Your task to perform on an android device: Go to Android settings Image 0: 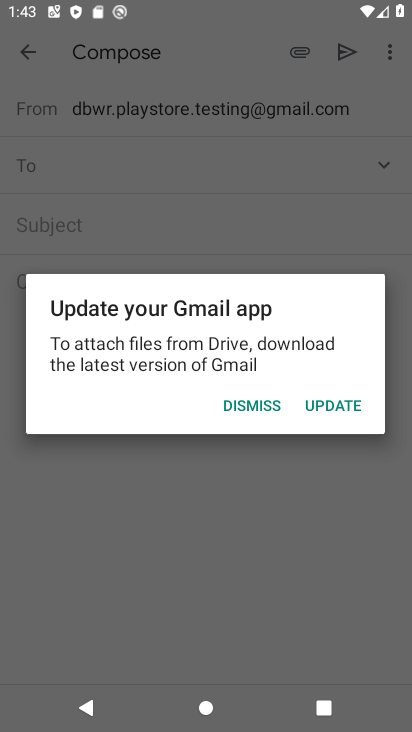
Step 0: press home button
Your task to perform on an android device: Go to Android settings Image 1: 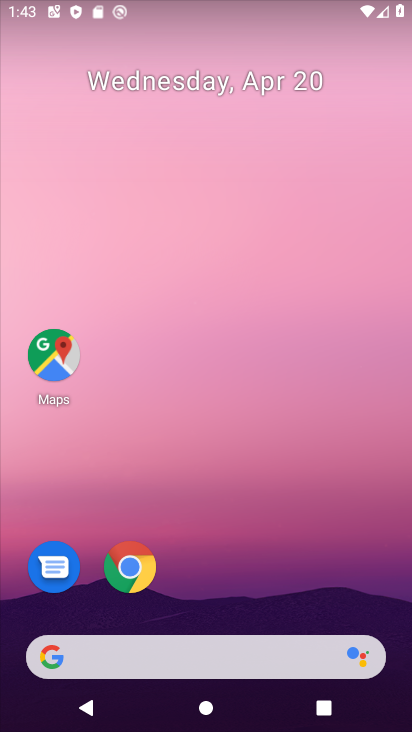
Step 1: drag from (240, 599) to (238, 132)
Your task to perform on an android device: Go to Android settings Image 2: 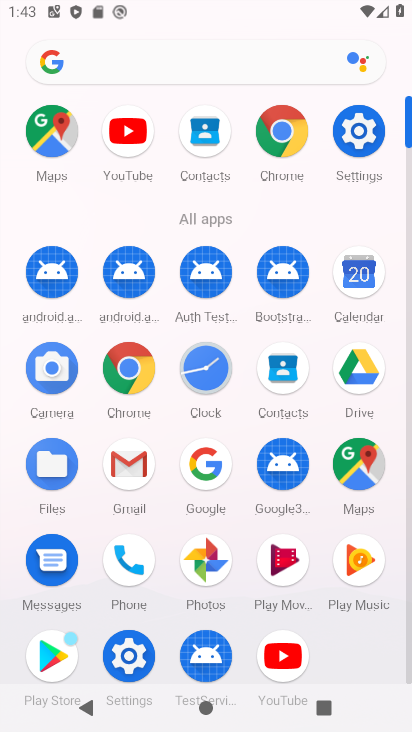
Step 2: click (362, 136)
Your task to perform on an android device: Go to Android settings Image 3: 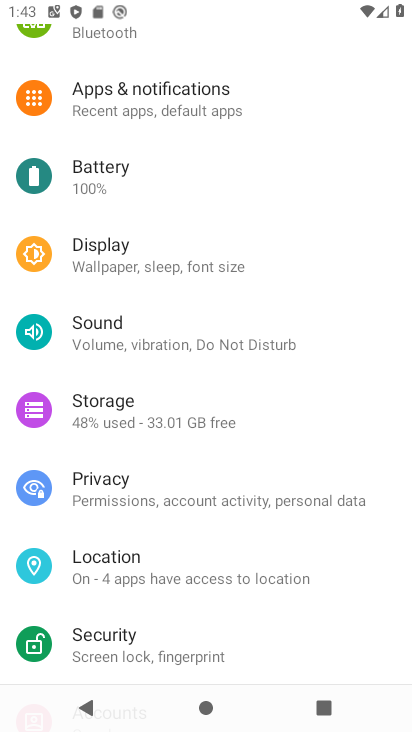
Step 3: drag from (118, 652) to (172, 56)
Your task to perform on an android device: Go to Android settings Image 4: 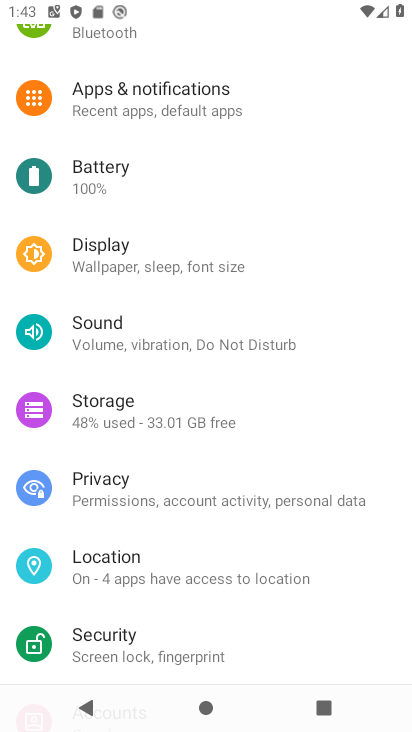
Step 4: drag from (173, 597) to (220, 245)
Your task to perform on an android device: Go to Android settings Image 5: 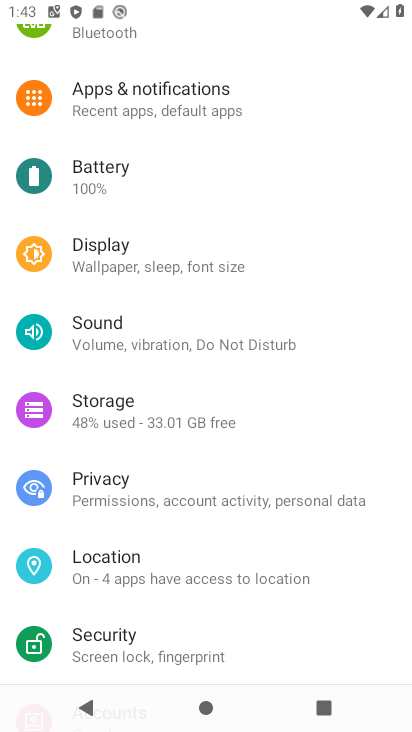
Step 5: drag from (177, 638) to (186, 408)
Your task to perform on an android device: Go to Android settings Image 6: 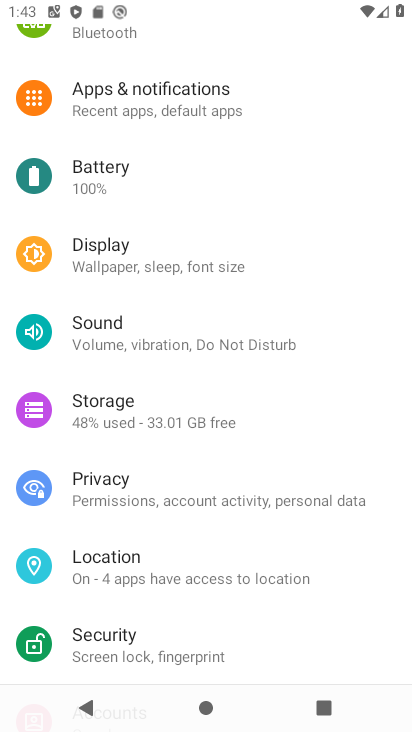
Step 6: drag from (168, 610) to (178, 276)
Your task to perform on an android device: Go to Android settings Image 7: 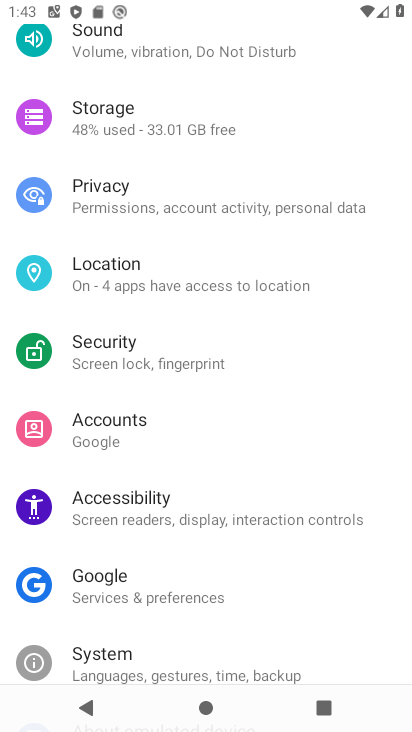
Step 7: drag from (144, 628) to (178, 349)
Your task to perform on an android device: Go to Android settings Image 8: 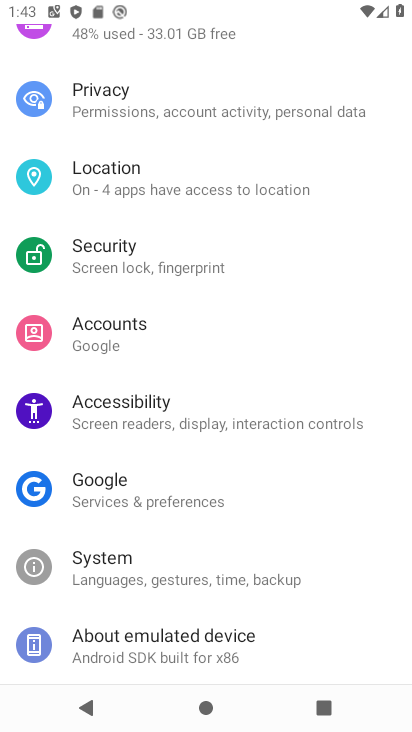
Step 8: click (182, 654)
Your task to perform on an android device: Go to Android settings Image 9: 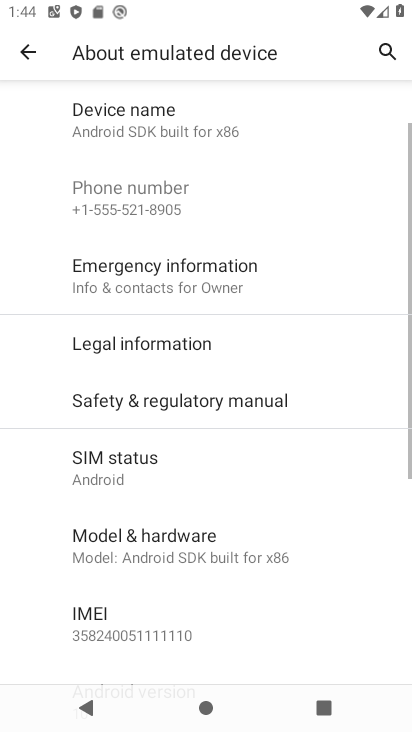
Step 9: drag from (236, 610) to (223, 277)
Your task to perform on an android device: Go to Android settings Image 10: 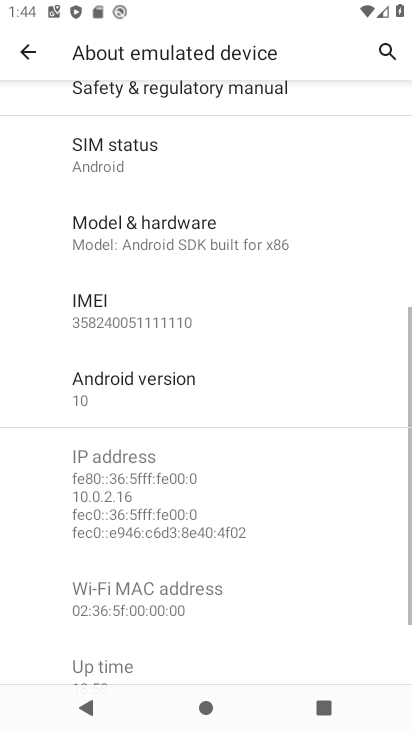
Step 10: drag from (230, 640) to (234, 304)
Your task to perform on an android device: Go to Android settings Image 11: 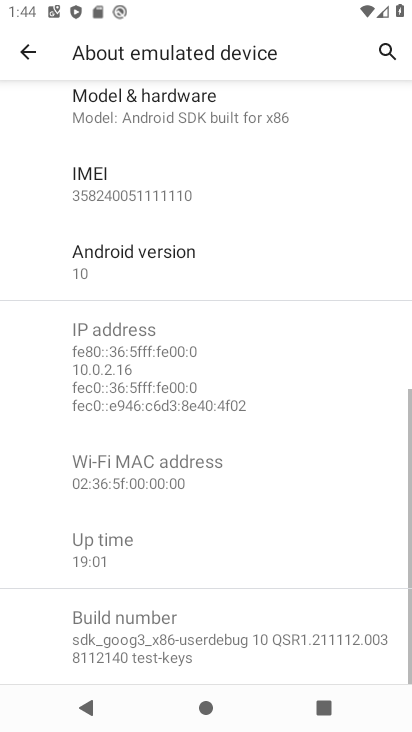
Step 11: drag from (293, 539) to (324, 169)
Your task to perform on an android device: Go to Android settings Image 12: 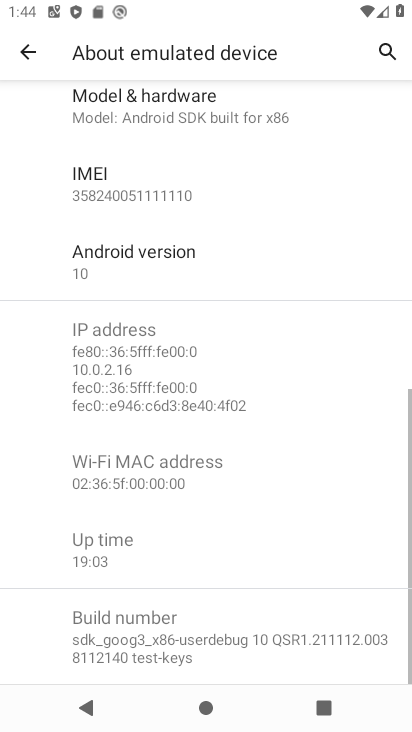
Step 12: click (112, 262)
Your task to perform on an android device: Go to Android settings Image 13: 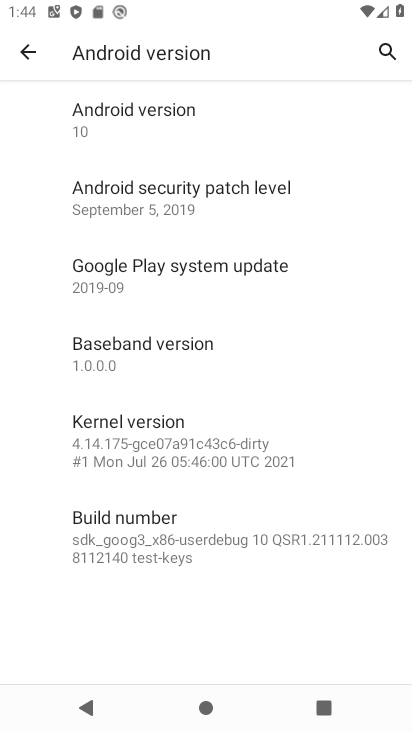
Step 13: task complete